Your task to perform on an android device: Toggle the flashlight Image 0: 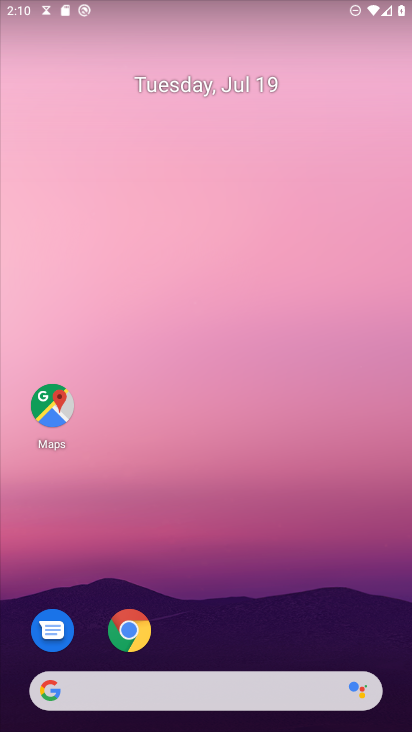
Step 0: press home button
Your task to perform on an android device: Toggle the flashlight Image 1: 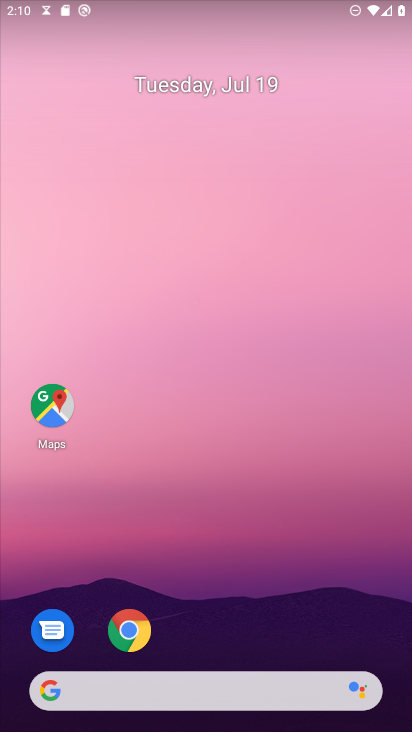
Step 1: task complete